Your task to perform on an android device: read, delete, or share a saved page in the chrome app Image 0: 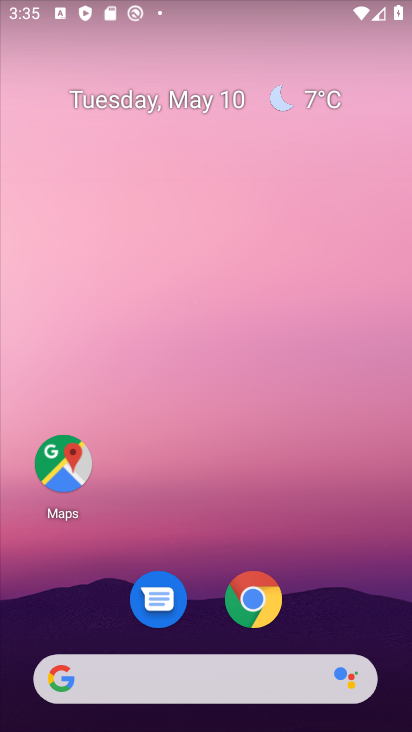
Step 0: drag from (338, 664) to (351, 303)
Your task to perform on an android device: read, delete, or share a saved page in the chrome app Image 1: 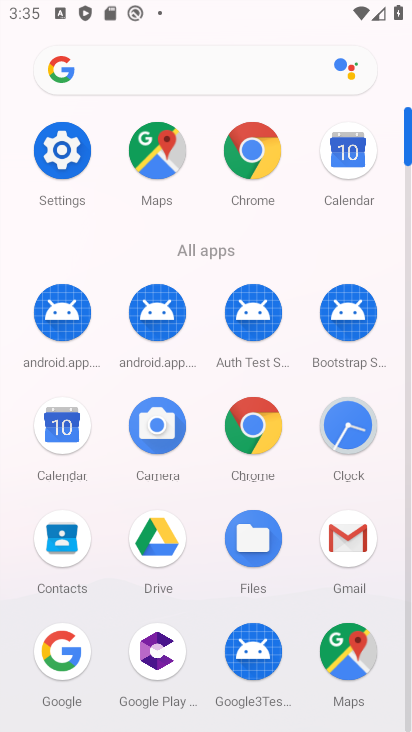
Step 1: click (261, 197)
Your task to perform on an android device: read, delete, or share a saved page in the chrome app Image 2: 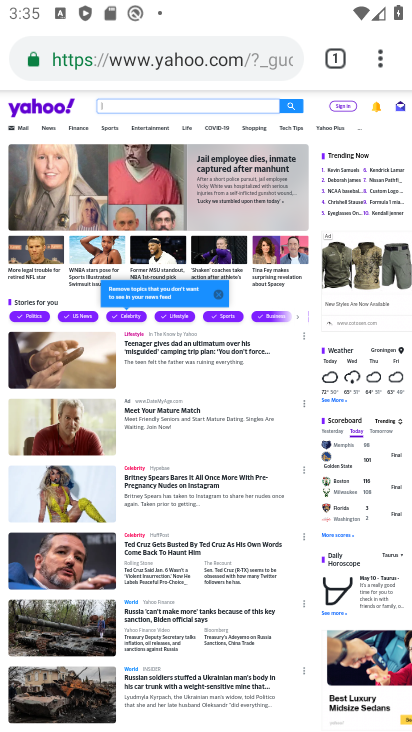
Step 2: click (381, 70)
Your task to perform on an android device: read, delete, or share a saved page in the chrome app Image 3: 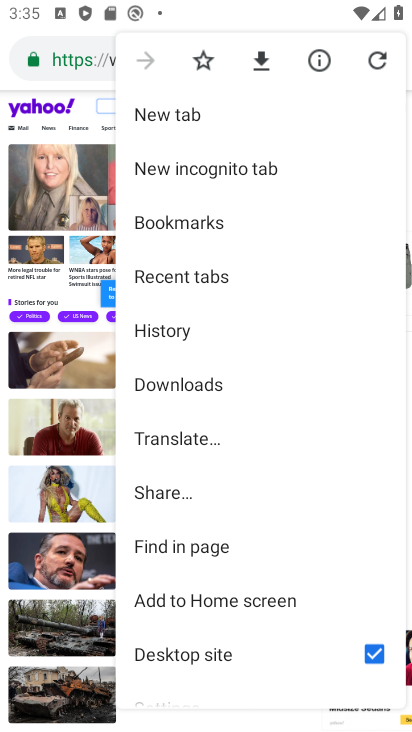
Step 3: click (224, 390)
Your task to perform on an android device: read, delete, or share a saved page in the chrome app Image 4: 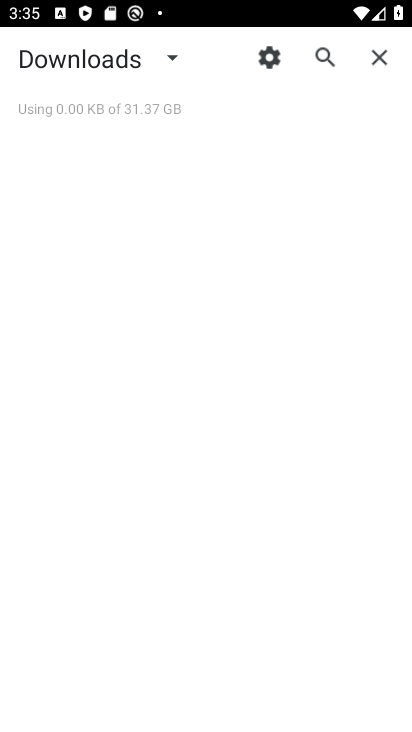
Step 4: click (169, 56)
Your task to perform on an android device: read, delete, or share a saved page in the chrome app Image 5: 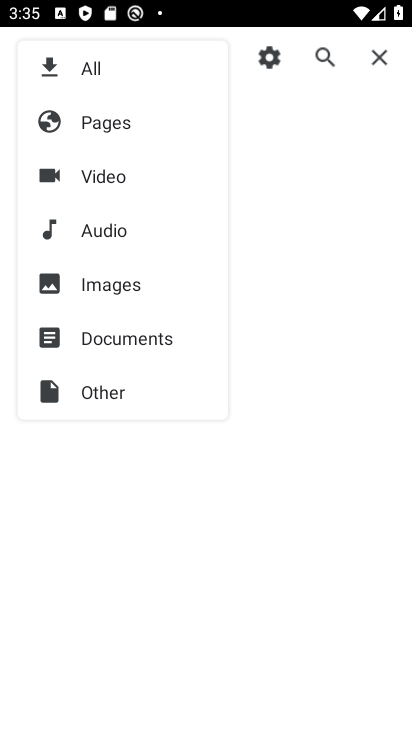
Step 5: click (133, 119)
Your task to perform on an android device: read, delete, or share a saved page in the chrome app Image 6: 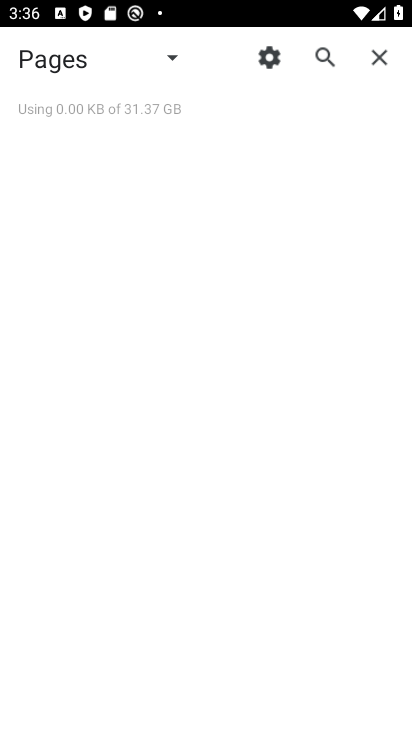
Step 6: task complete